Your task to perform on an android device: turn off smart reply in the gmail app Image 0: 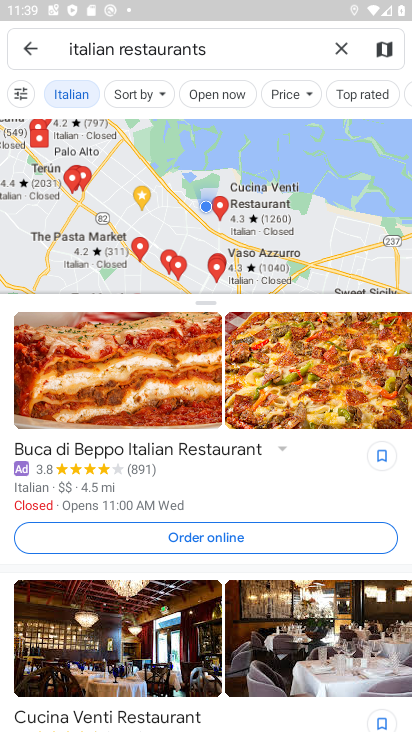
Step 0: press home button
Your task to perform on an android device: turn off smart reply in the gmail app Image 1: 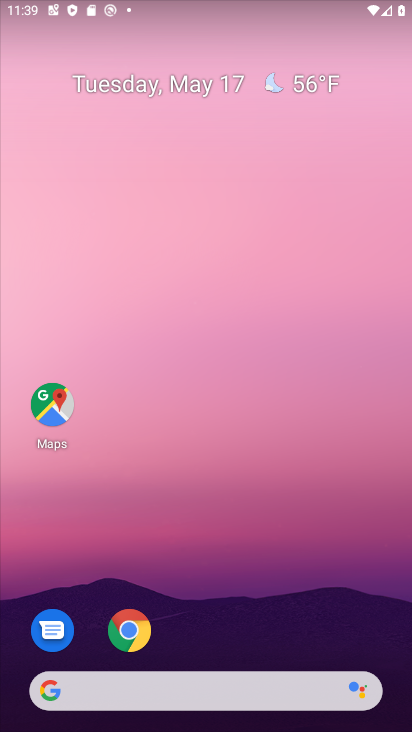
Step 1: drag from (396, 598) to (332, 210)
Your task to perform on an android device: turn off smart reply in the gmail app Image 2: 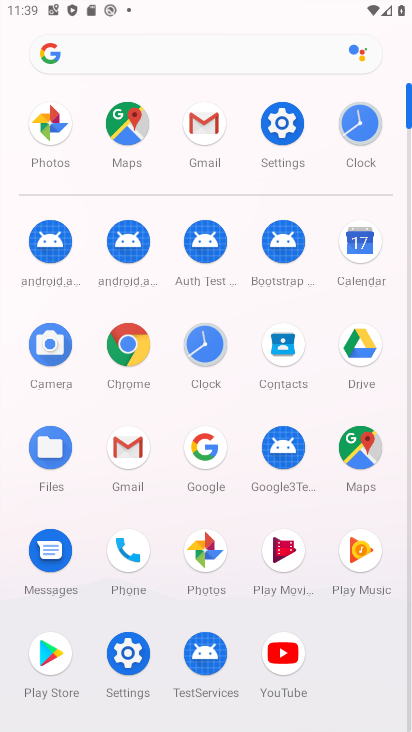
Step 2: click (140, 479)
Your task to perform on an android device: turn off smart reply in the gmail app Image 3: 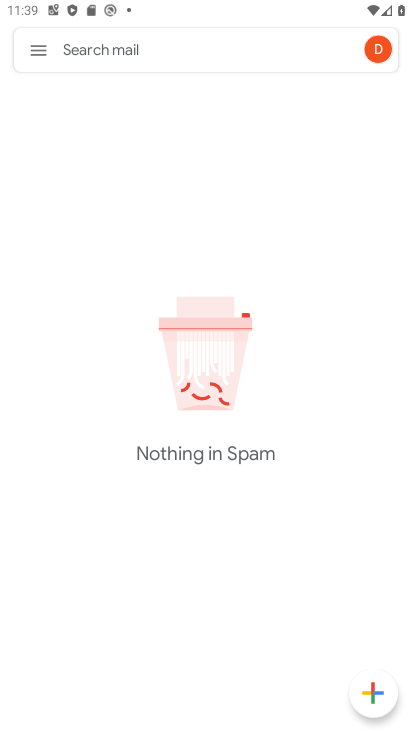
Step 3: click (40, 42)
Your task to perform on an android device: turn off smart reply in the gmail app Image 4: 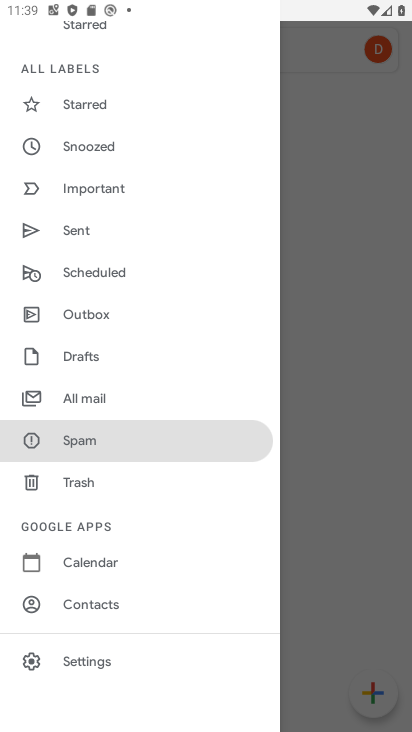
Step 4: click (133, 662)
Your task to perform on an android device: turn off smart reply in the gmail app Image 5: 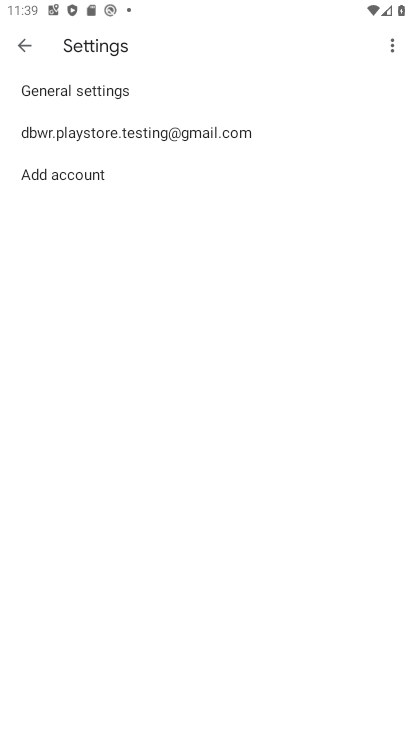
Step 5: click (136, 138)
Your task to perform on an android device: turn off smart reply in the gmail app Image 6: 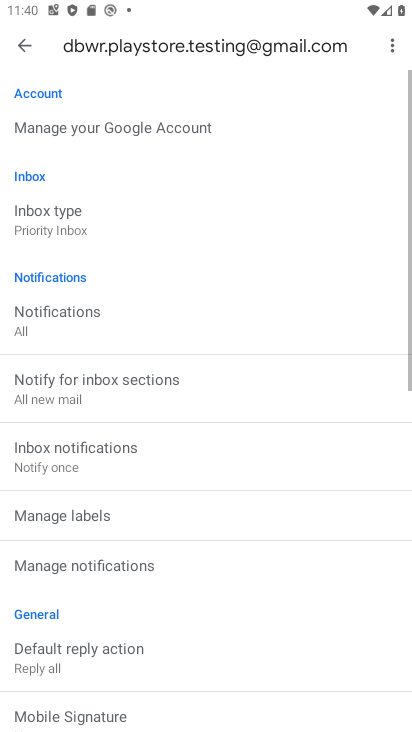
Step 6: drag from (278, 625) to (286, 258)
Your task to perform on an android device: turn off smart reply in the gmail app Image 7: 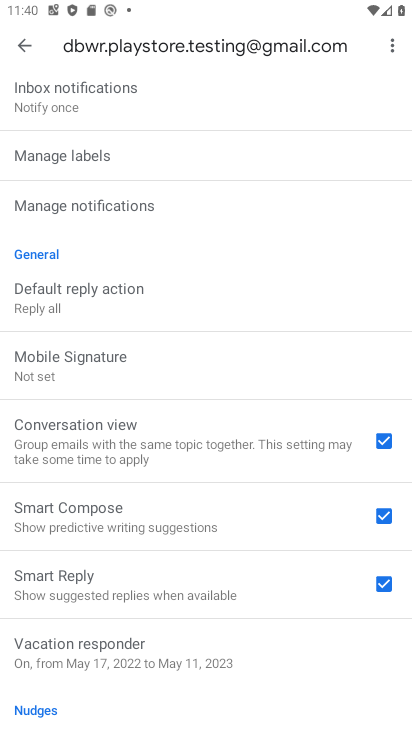
Step 7: click (384, 582)
Your task to perform on an android device: turn off smart reply in the gmail app Image 8: 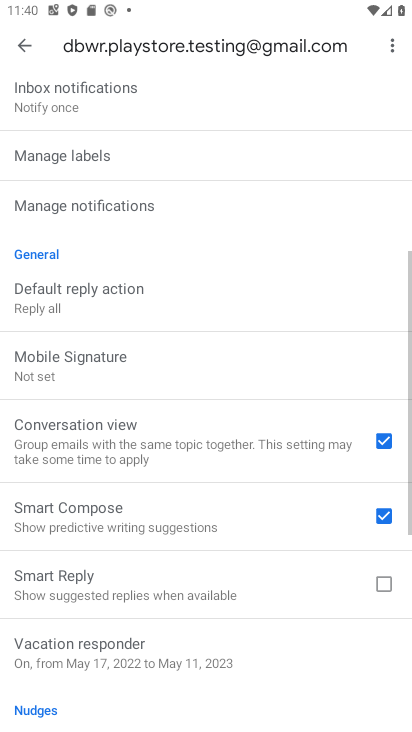
Step 8: task complete